Your task to perform on an android device: Open maps Image 0: 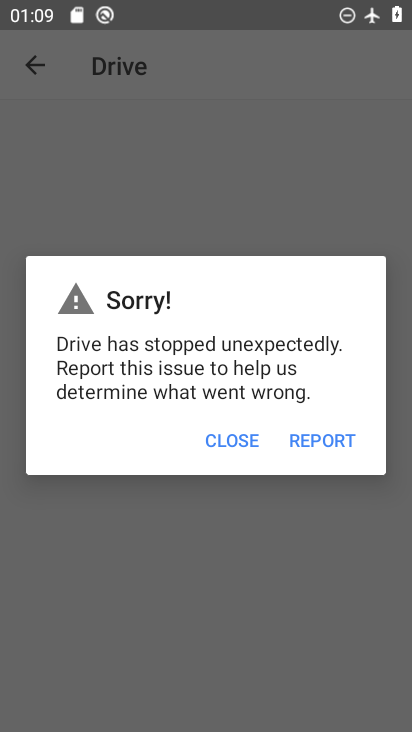
Step 0: press home button
Your task to perform on an android device: Open maps Image 1: 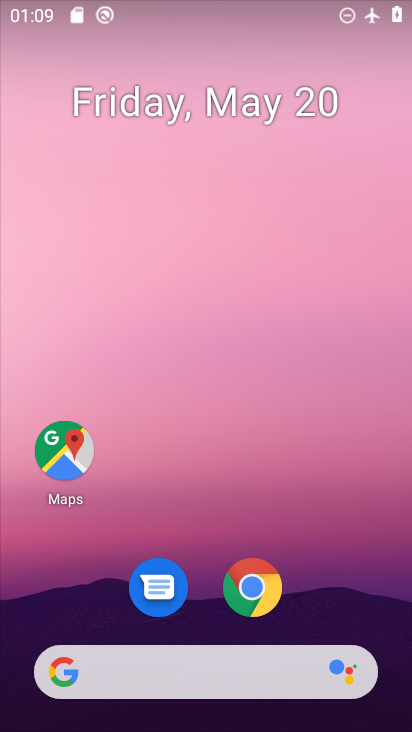
Step 1: drag from (370, 601) to (367, 212)
Your task to perform on an android device: Open maps Image 2: 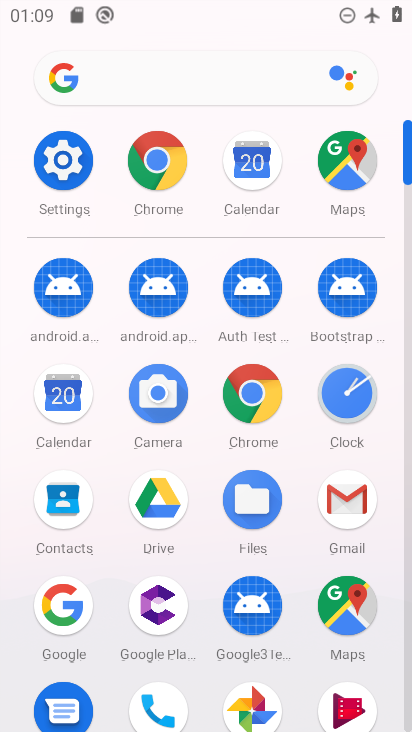
Step 2: click (360, 614)
Your task to perform on an android device: Open maps Image 3: 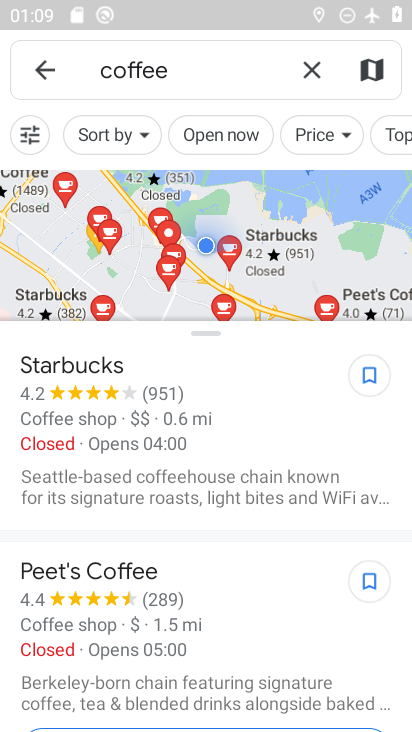
Step 3: task complete